Your task to perform on an android device: Go to internet settings Image 0: 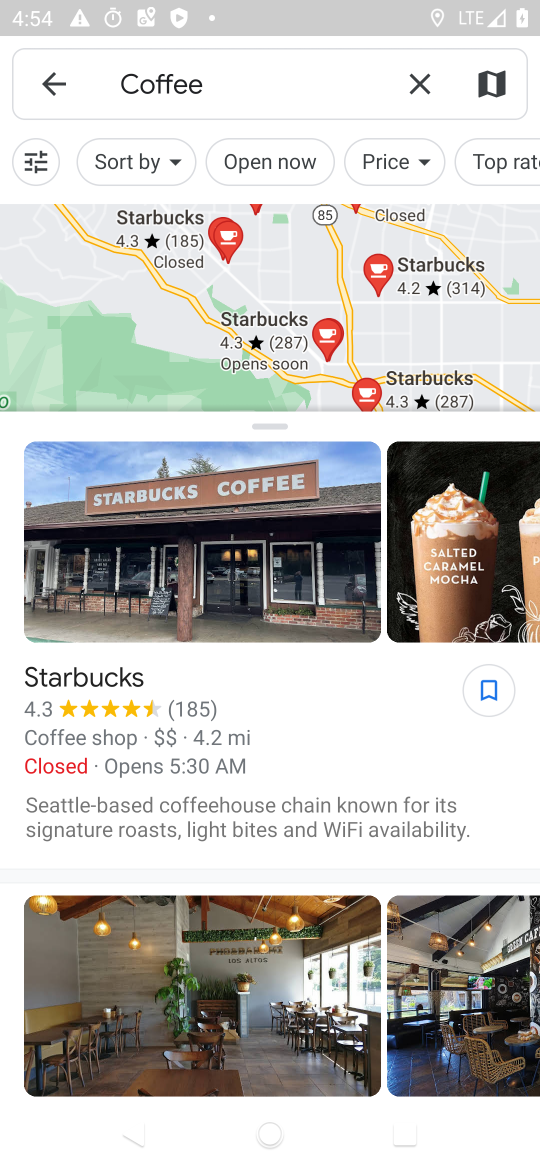
Step 0: drag from (291, 6) to (464, 993)
Your task to perform on an android device: Go to internet settings Image 1: 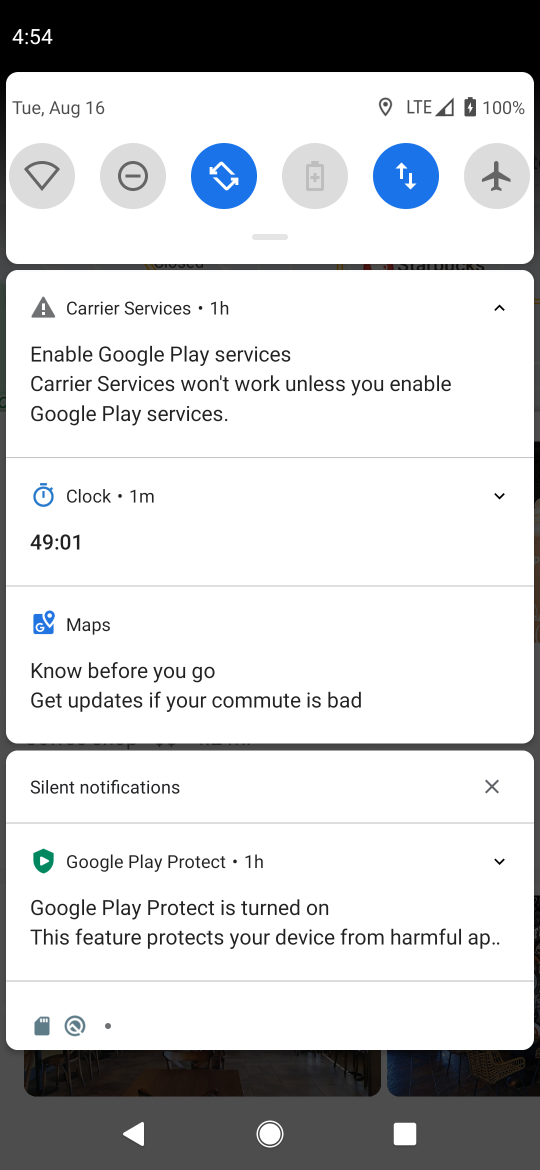
Step 1: click (389, 179)
Your task to perform on an android device: Go to internet settings Image 2: 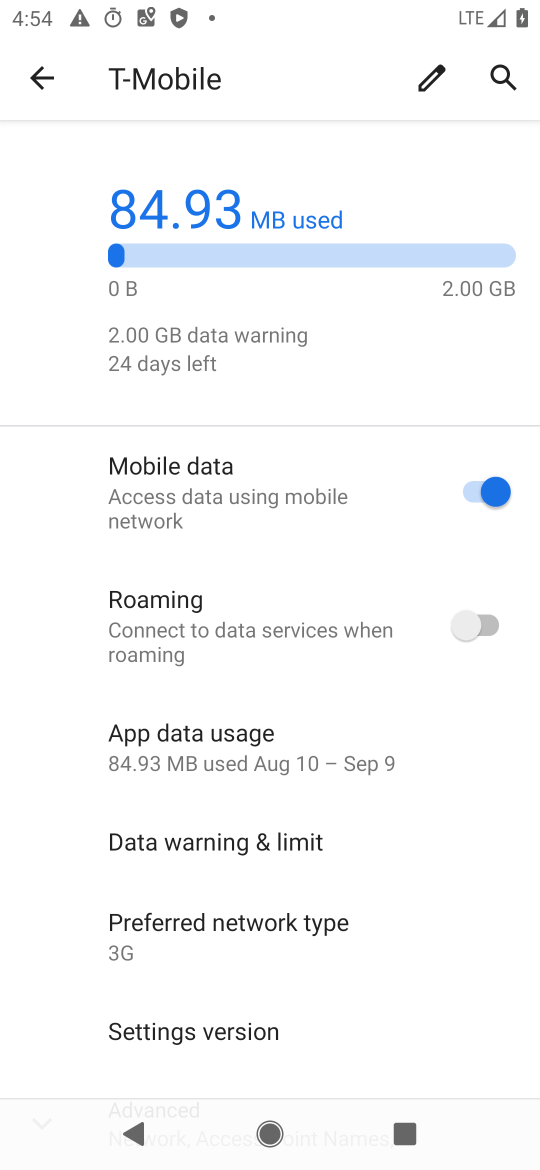
Step 2: task complete